Your task to perform on an android device: change your default location settings in chrome Image 0: 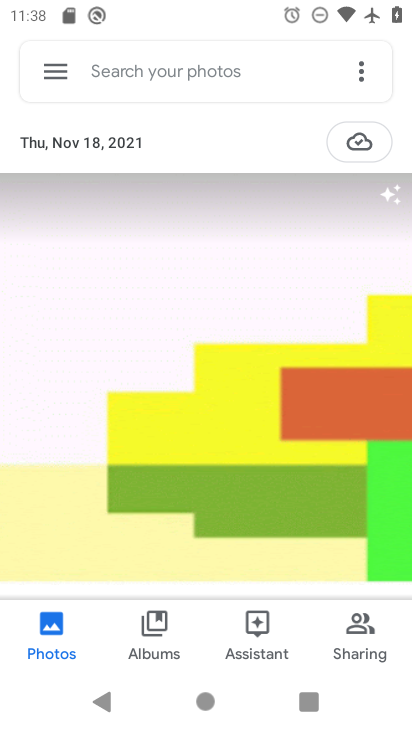
Step 0: press home button
Your task to perform on an android device: change your default location settings in chrome Image 1: 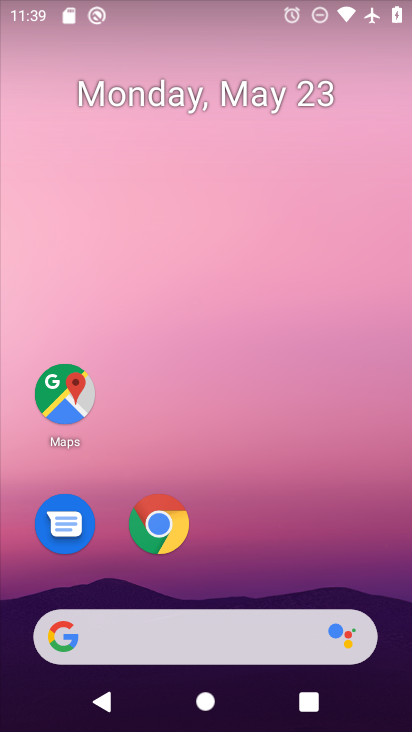
Step 1: click (161, 516)
Your task to perform on an android device: change your default location settings in chrome Image 2: 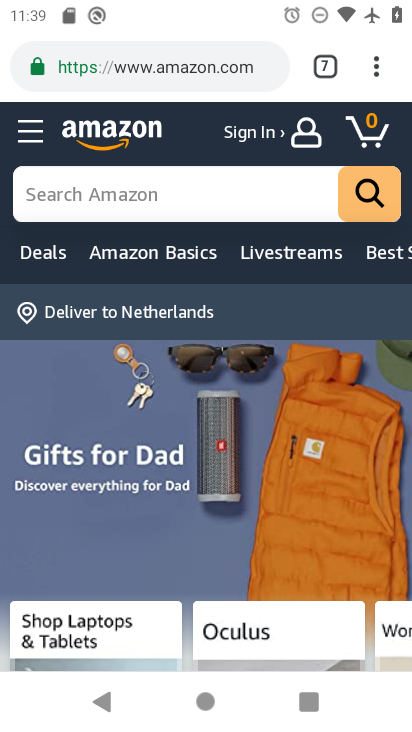
Step 2: drag from (377, 71) to (171, 511)
Your task to perform on an android device: change your default location settings in chrome Image 3: 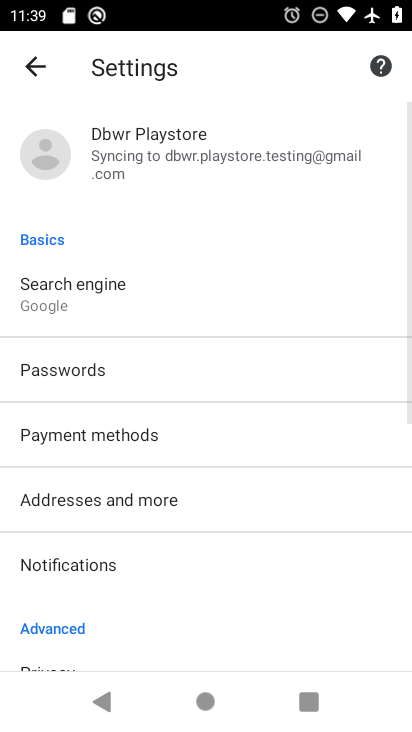
Step 3: drag from (161, 627) to (174, 278)
Your task to perform on an android device: change your default location settings in chrome Image 4: 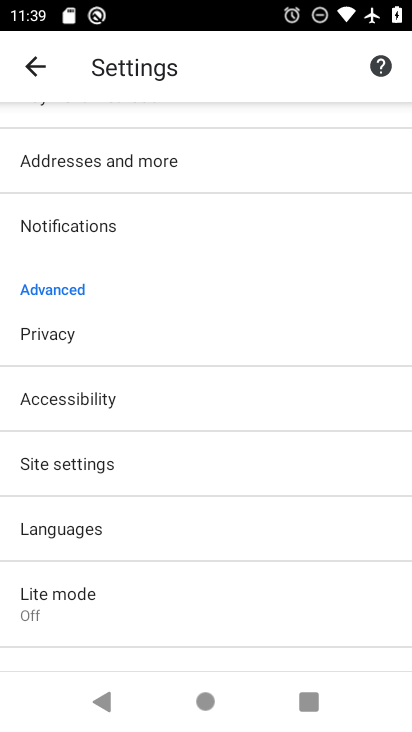
Step 4: drag from (167, 561) to (186, 317)
Your task to perform on an android device: change your default location settings in chrome Image 5: 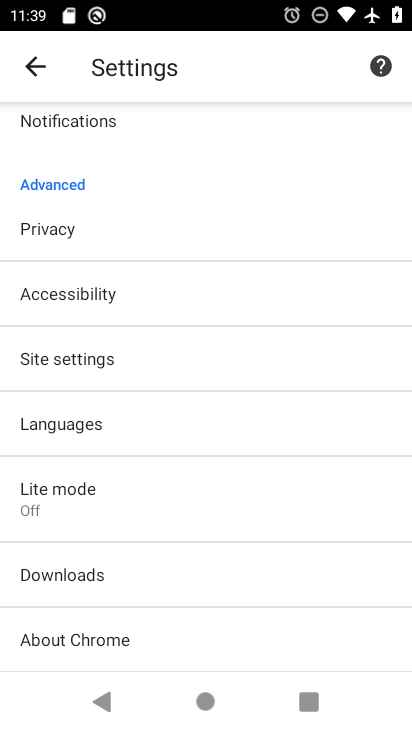
Step 5: drag from (167, 559) to (172, 383)
Your task to perform on an android device: change your default location settings in chrome Image 6: 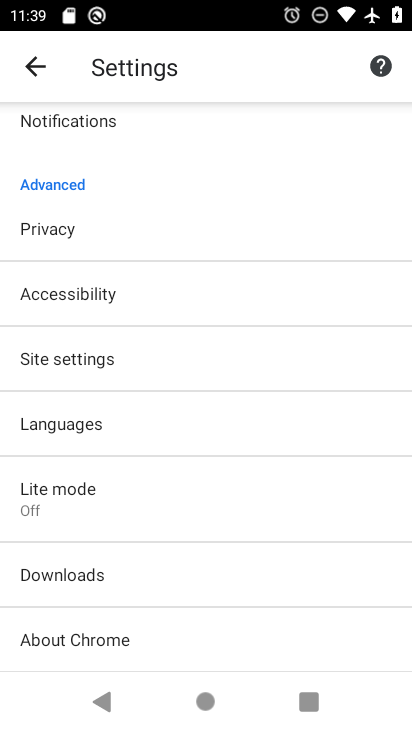
Step 6: click (110, 340)
Your task to perform on an android device: change your default location settings in chrome Image 7: 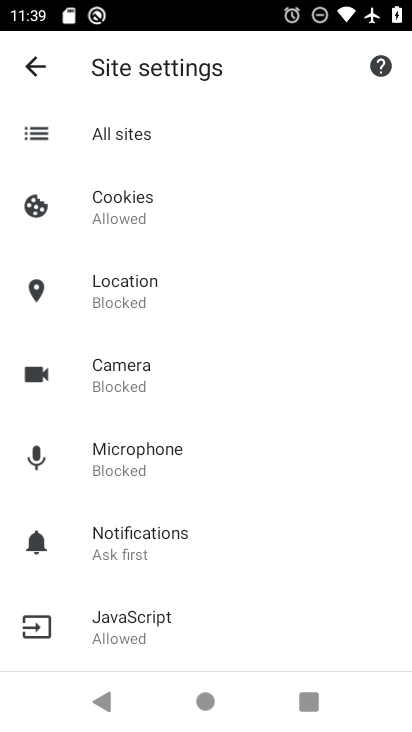
Step 7: click (121, 306)
Your task to perform on an android device: change your default location settings in chrome Image 8: 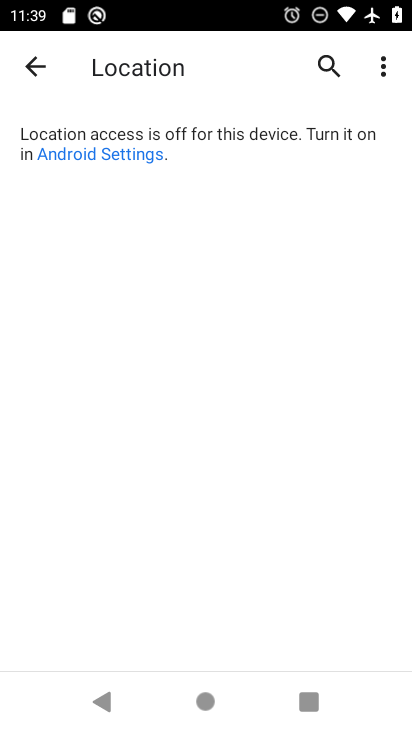
Step 8: click (246, 164)
Your task to perform on an android device: change your default location settings in chrome Image 9: 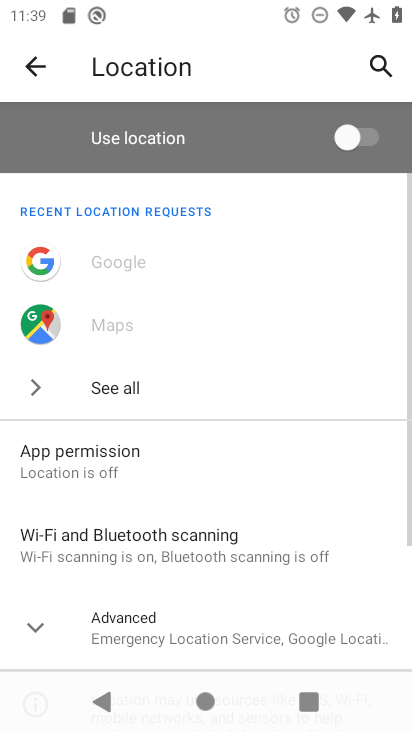
Step 9: click (357, 131)
Your task to perform on an android device: change your default location settings in chrome Image 10: 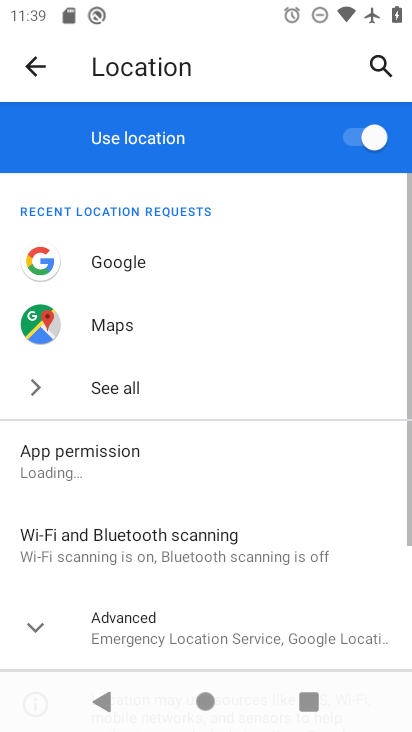
Step 10: task complete